Your task to perform on an android device: open a new tab in the chrome app Image 0: 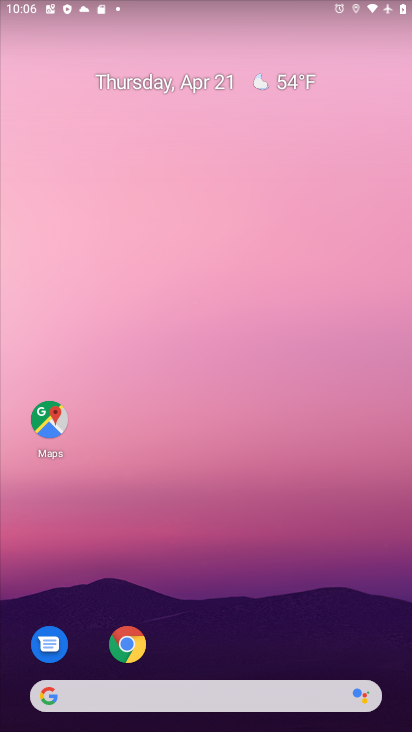
Step 0: click (112, 648)
Your task to perform on an android device: open a new tab in the chrome app Image 1: 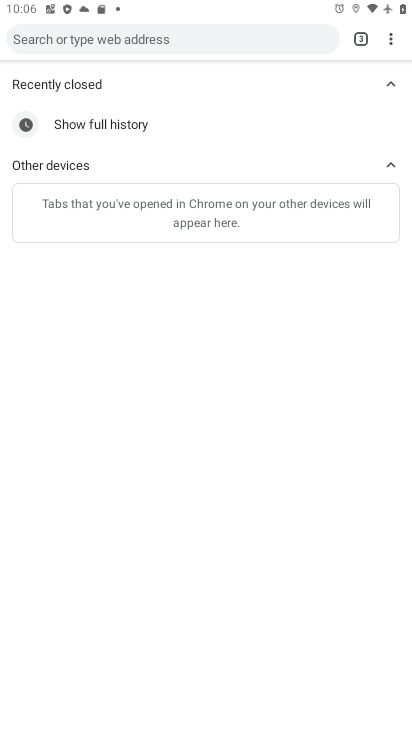
Step 1: click (367, 38)
Your task to perform on an android device: open a new tab in the chrome app Image 2: 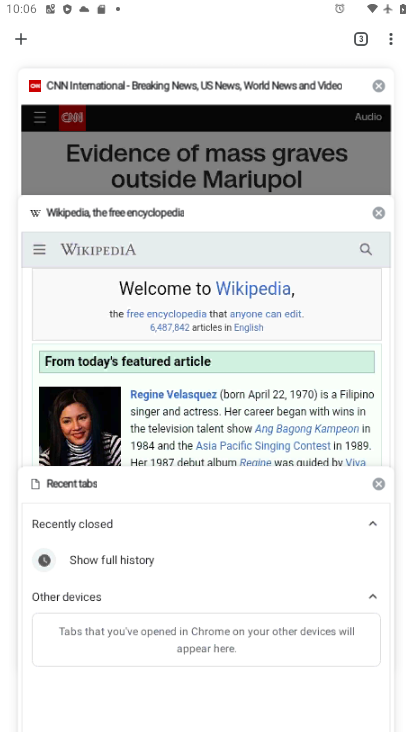
Step 2: click (22, 38)
Your task to perform on an android device: open a new tab in the chrome app Image 3: 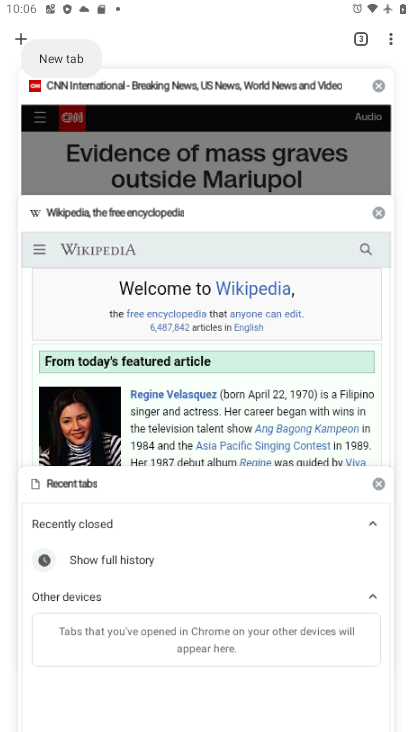
Step 3: click (22, 38)
Your task to perform on an android device: open a new tab in the chrome app Image 4: 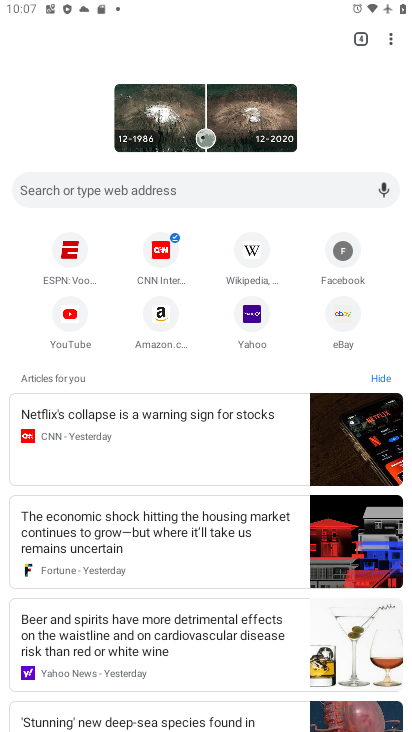
Step 4: task complete